Your task to perform on an android device: What's the weather today? Image 0: 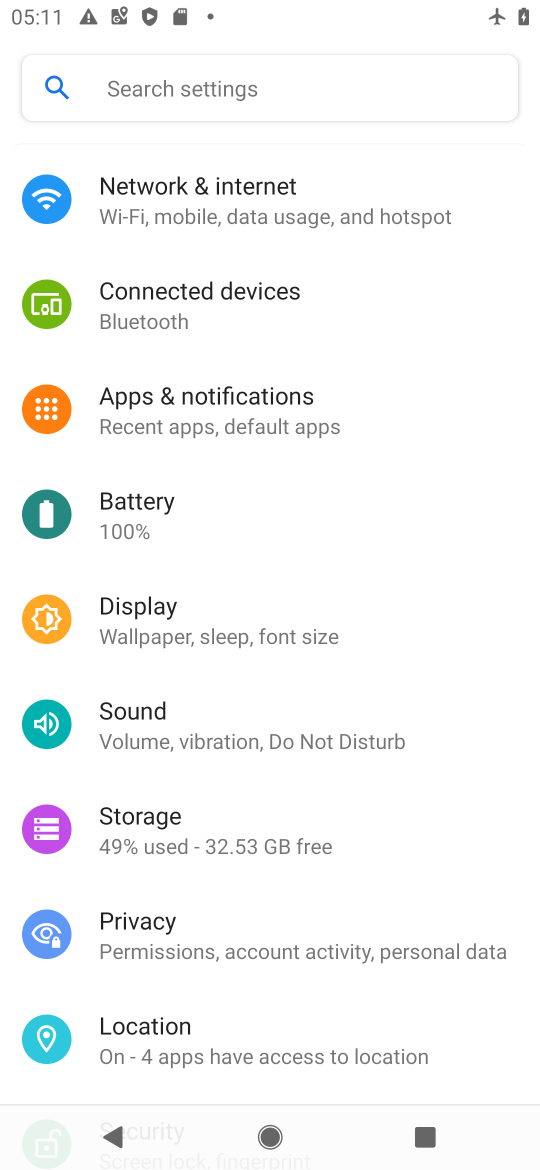
Step 0: press back button
Your task to perform on an android device: What's the weather today? Image 1: 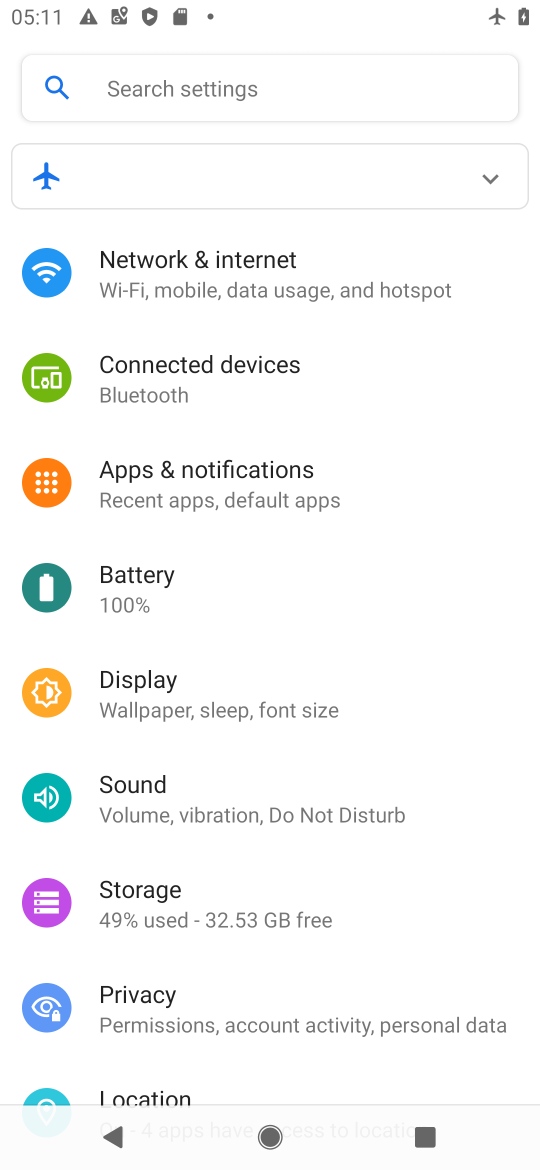
Step 1: press back button
Your task to perform on an android device: What's the weather today? Image 2: 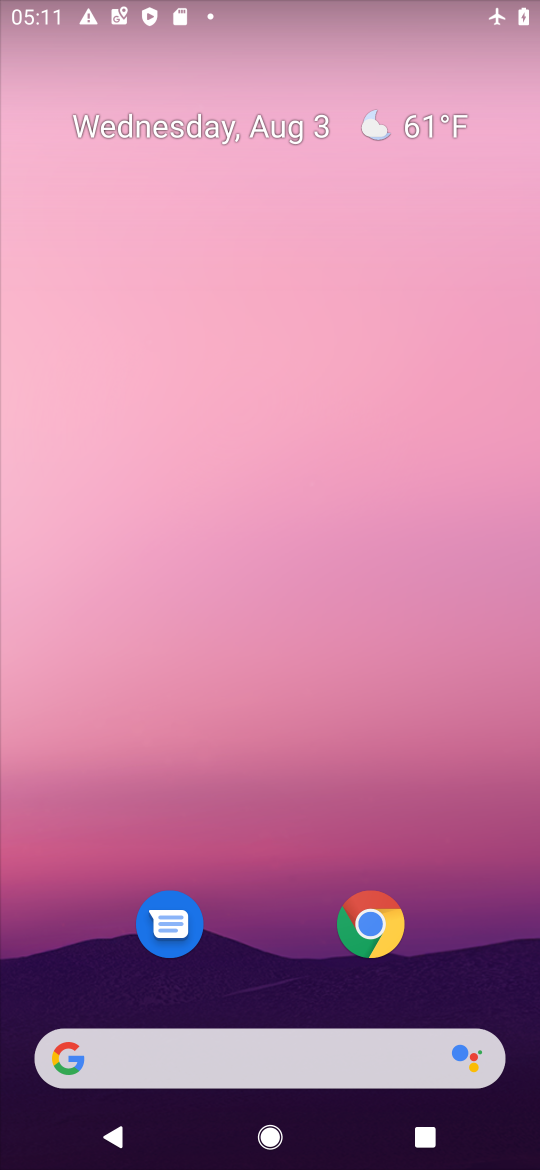
Step 2: press back button
Your task to perform on an android device: What's the weather today? Image 3: 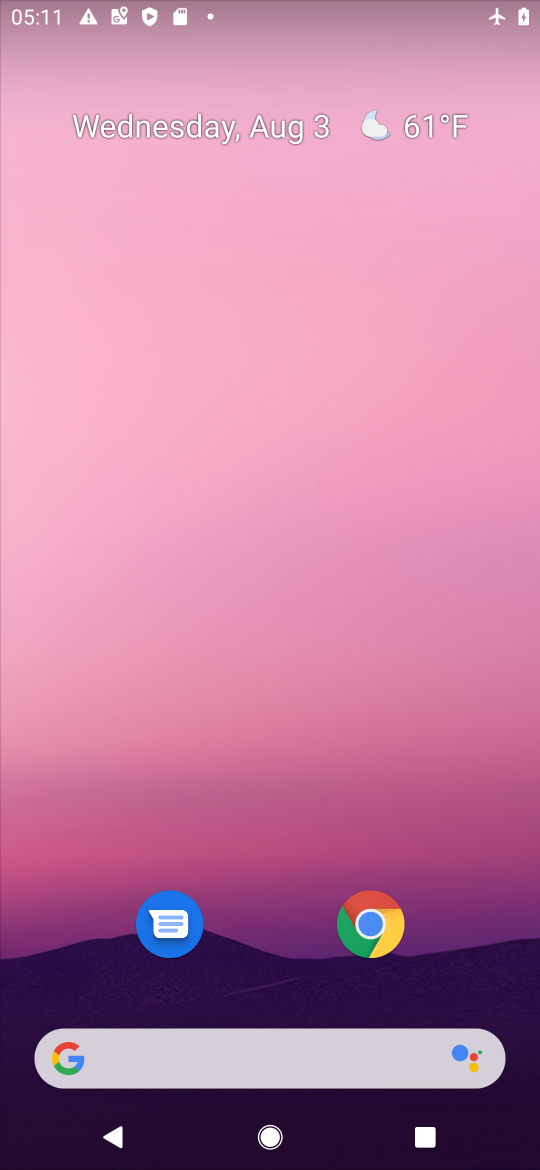
Step 3: drag from (278, 946) to (246, 332)
Your task to perform on an android device: What's the weather today? Image 4: 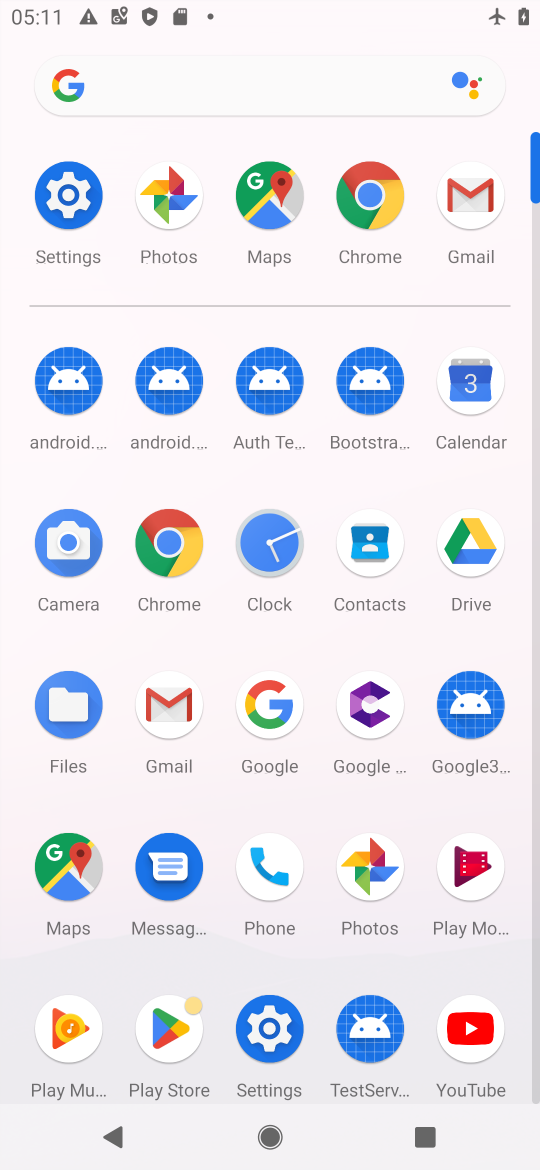
Step 4: click (288, 722)
Your task to perform on an android device: What's the weather today? Image 5: 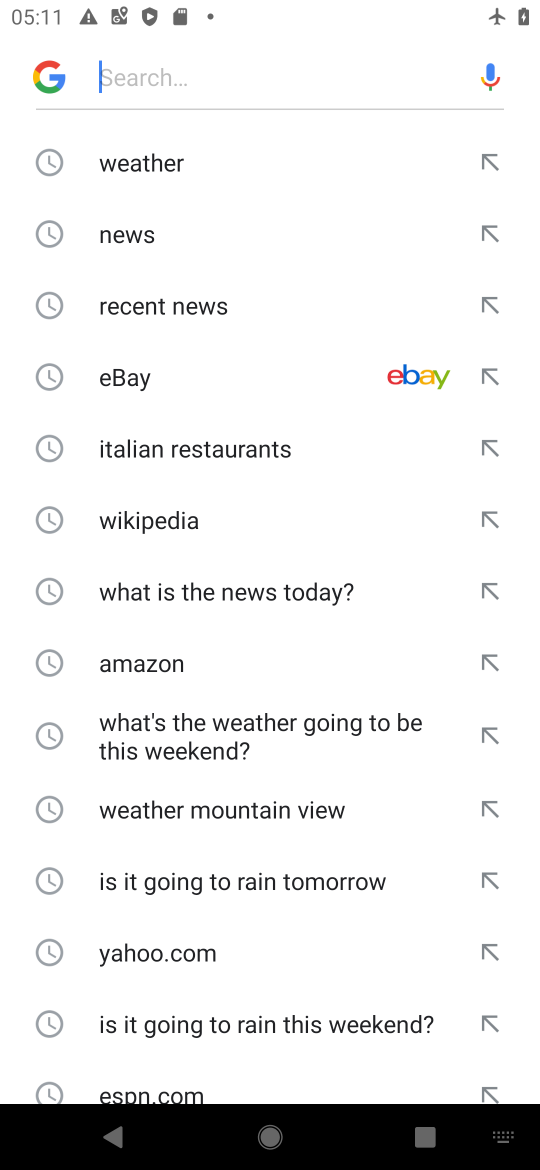
Step 5: click (186, 171)
Your task to perform on an android device: What's the weather today? Image 6: 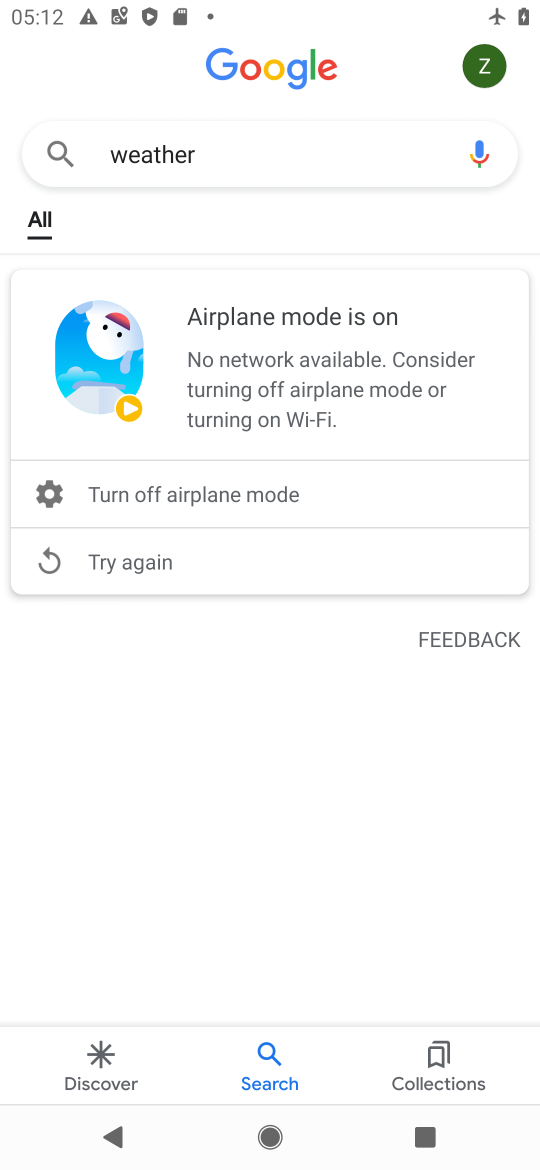
Step 6: task complete